Your task to perform on an android device: View the shopping cart on target. Add usb-a to the cart on target Image 0: 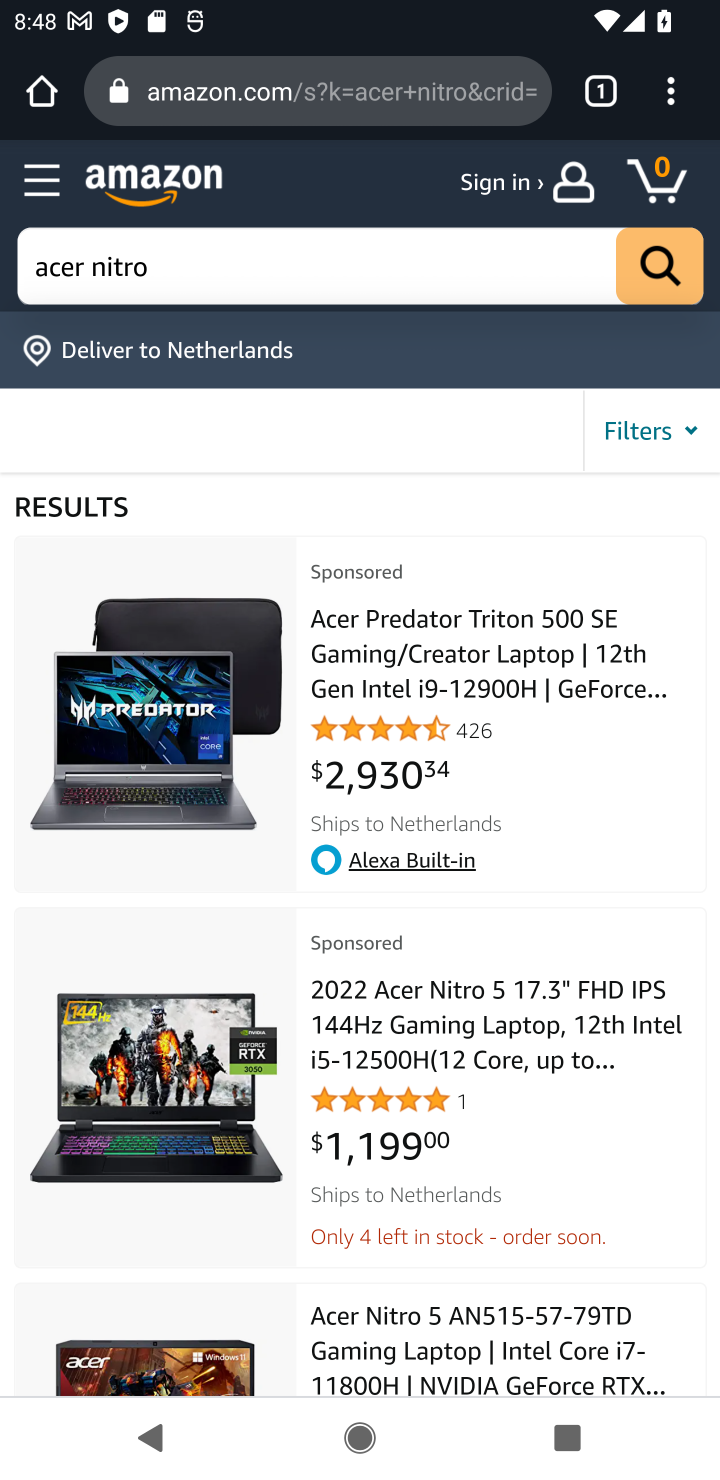
Step 0: press home button
Your task to perform on an android device: View the shopping cart on target. Add usb-a to the cart on target Image 1: 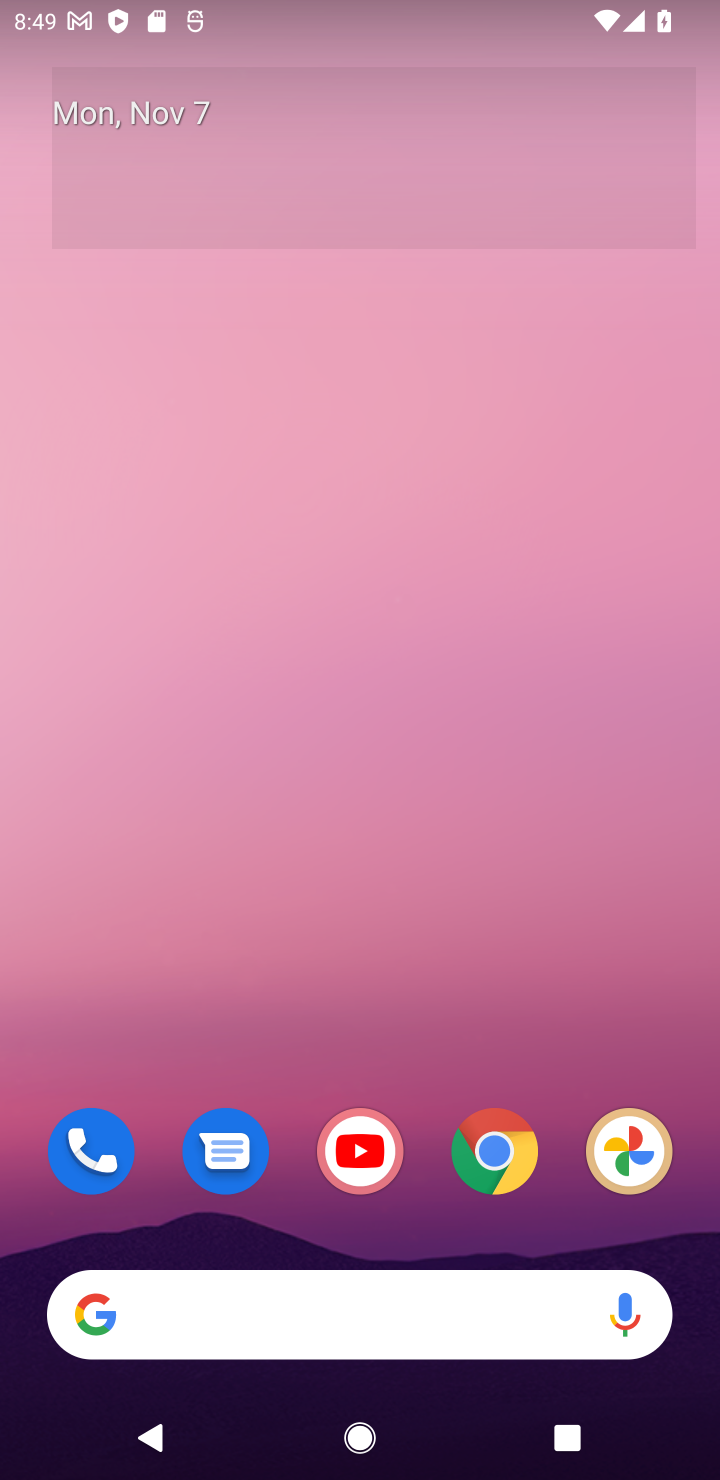
Step 1: click (483, 1144)
Your task to perform on an android device: View the shopping cart on target. Add usb-a to the cart on target Image 2: 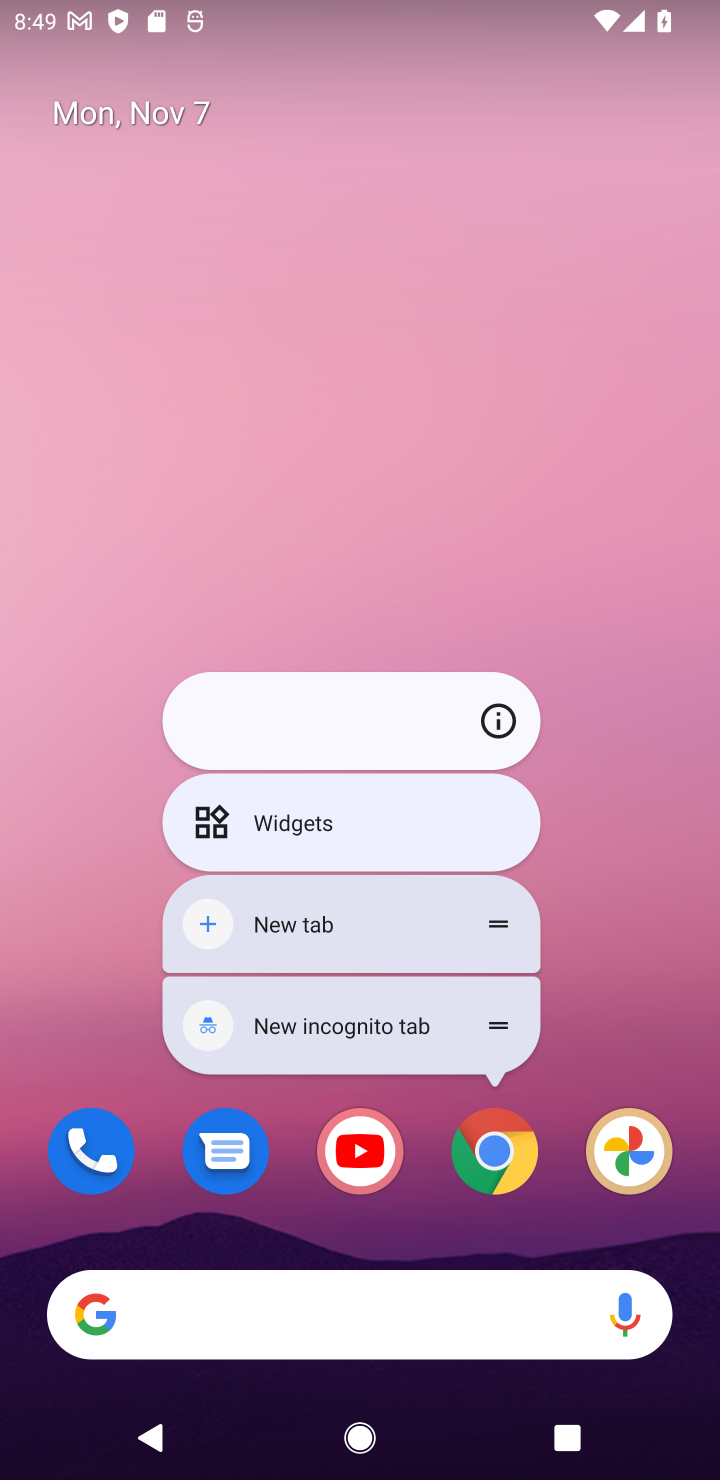
Step 2: click (483, 1148)
Your task to perform on an android device: View the shopping cart on target. Add usb-a to the cart on target Image 3: 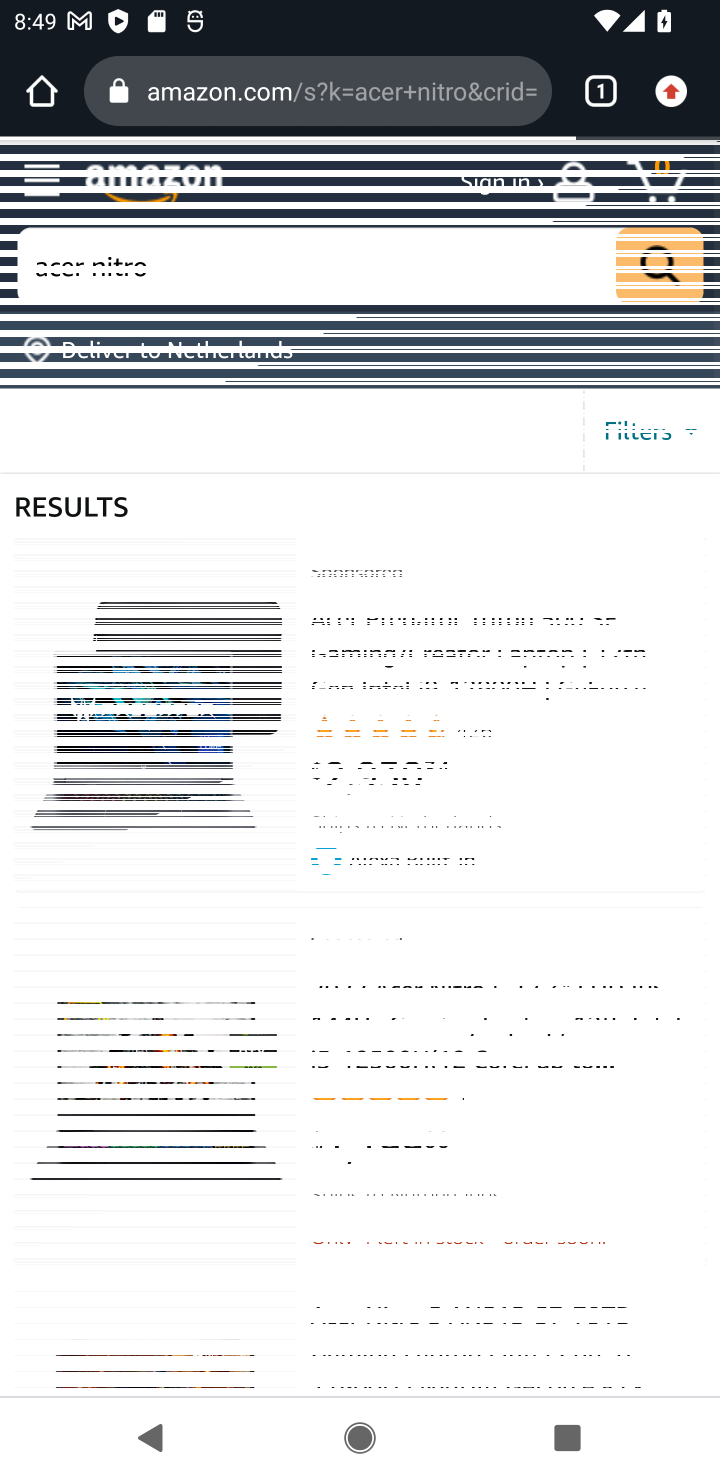
Step 3: click (372, 98)
Your task to perform on an android device: View the shopping cart on target. Add usb-a to the cart on target Image 4: 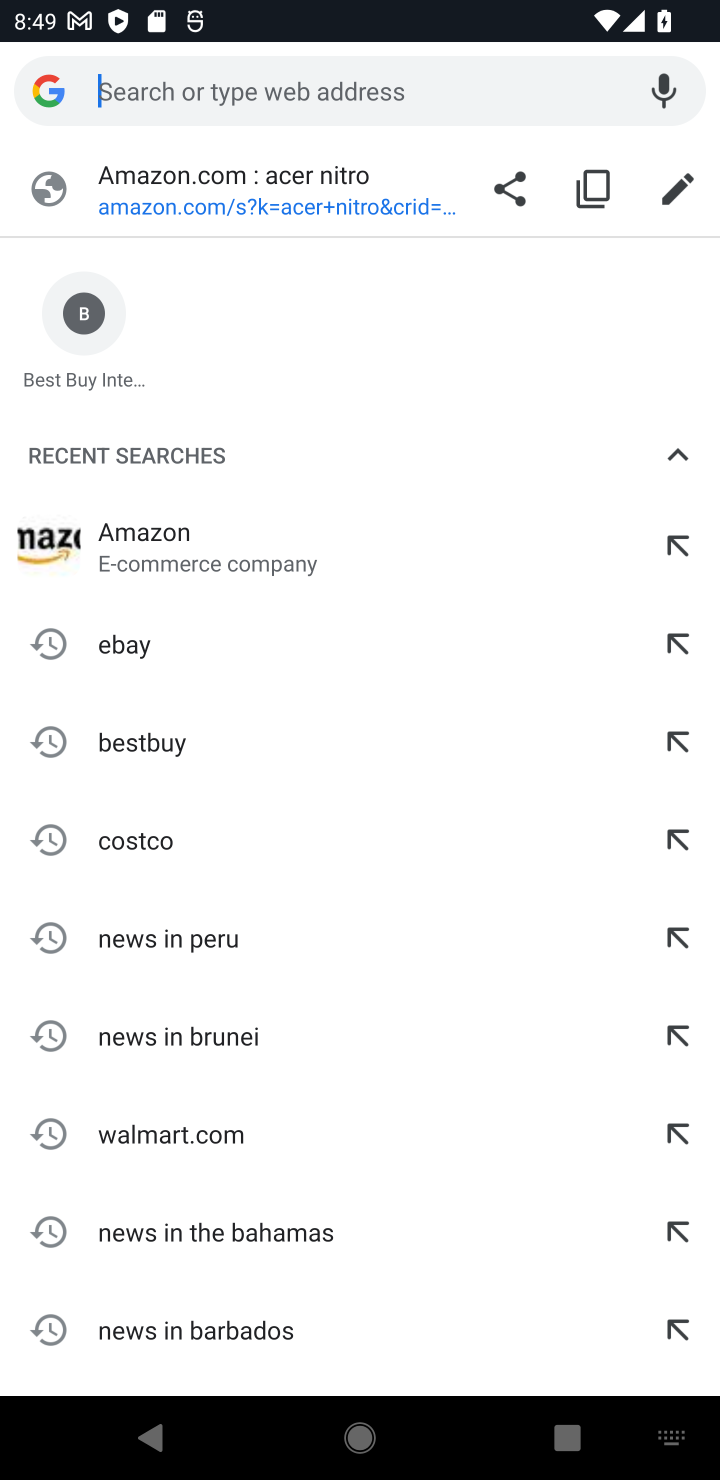
Step 4: drag from (284, 1204) to (370, 561)
Your task to perform on an android device: View the shopping cart on target. Add usb-a to the cart on target Image 5: 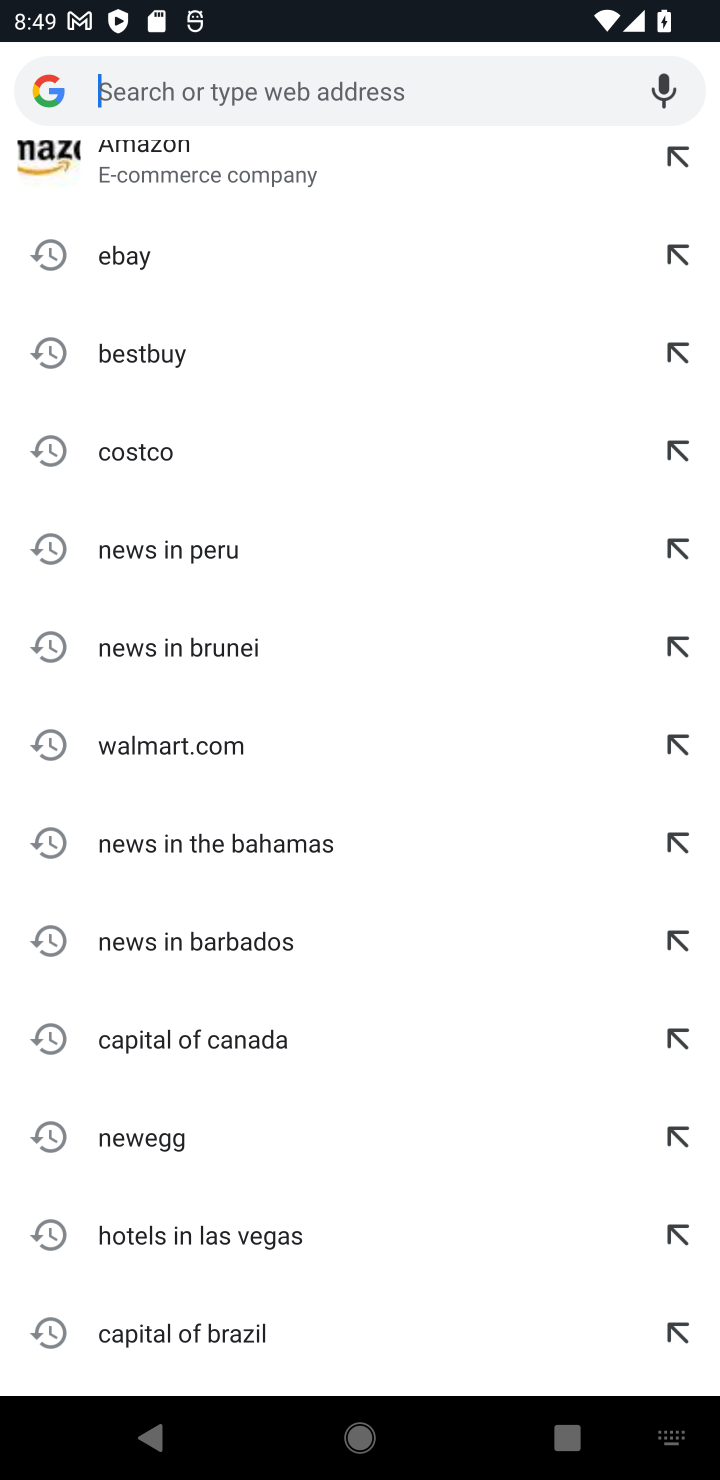
Step 5: type "target"
Your task to perform on an android device: View the shopping cart on target. Add usb-a to the cart on target Image 6: 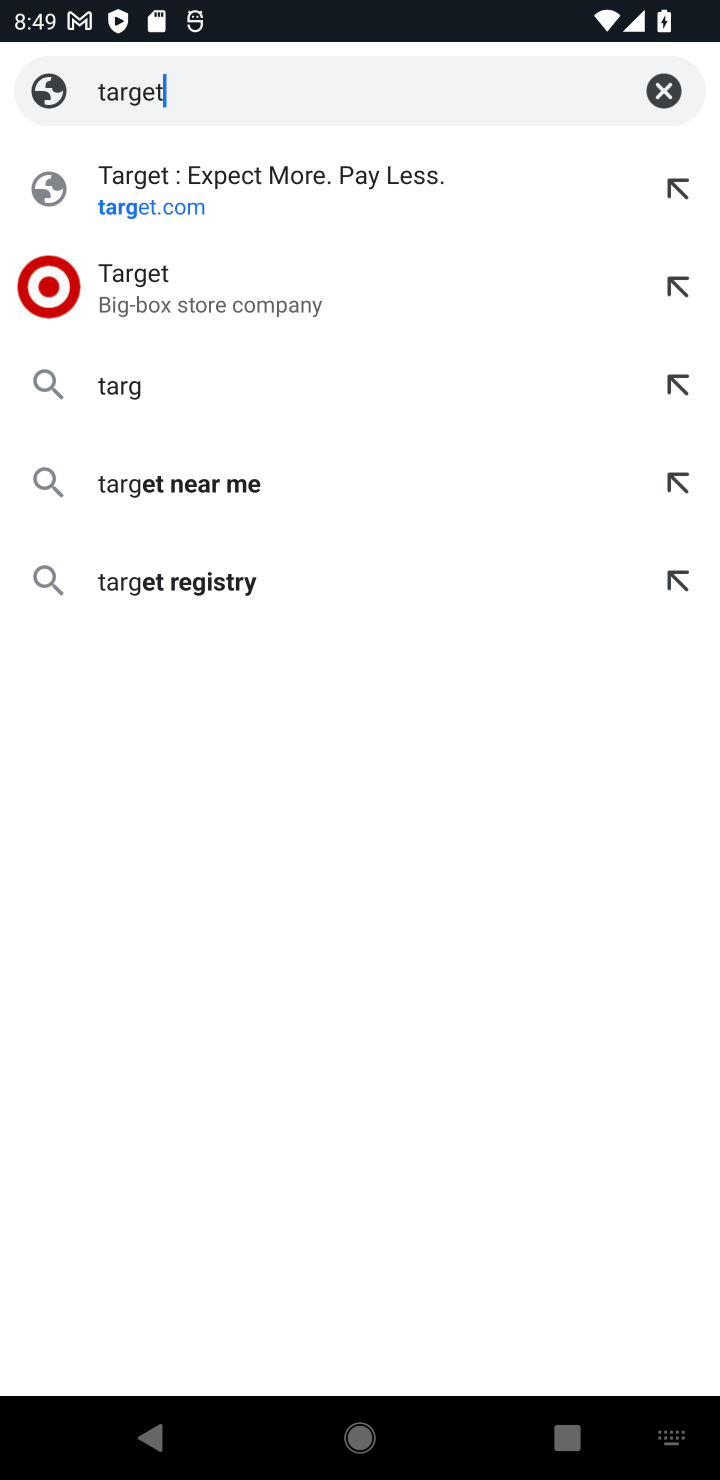
Step 6: press enter
Your task to perform on an android device: View the shopping cart on target. Add usb-a to the cart on target Image 7: 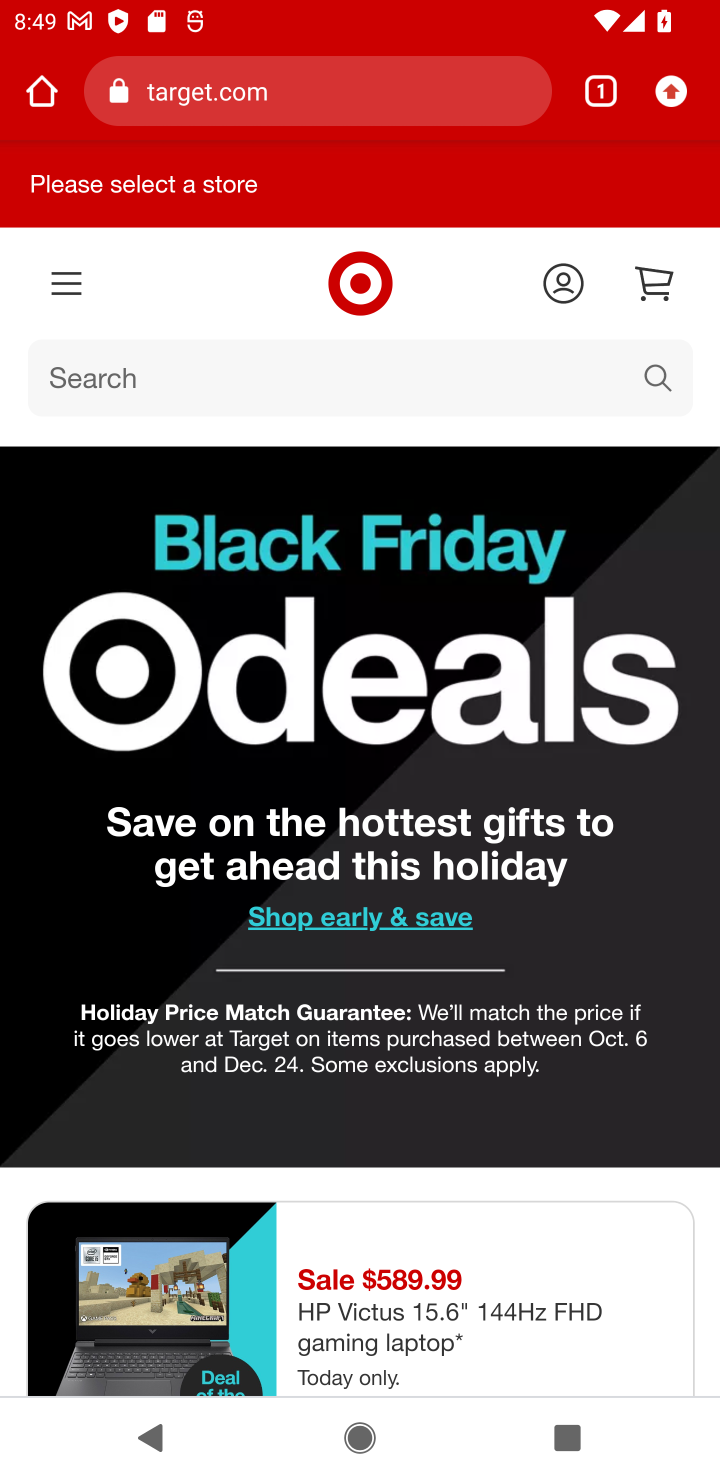
Step 7: click (293, 367)
Your task to perform on an android device: View the shopping cart on target. Add usb-a to the cart on target Image 8: 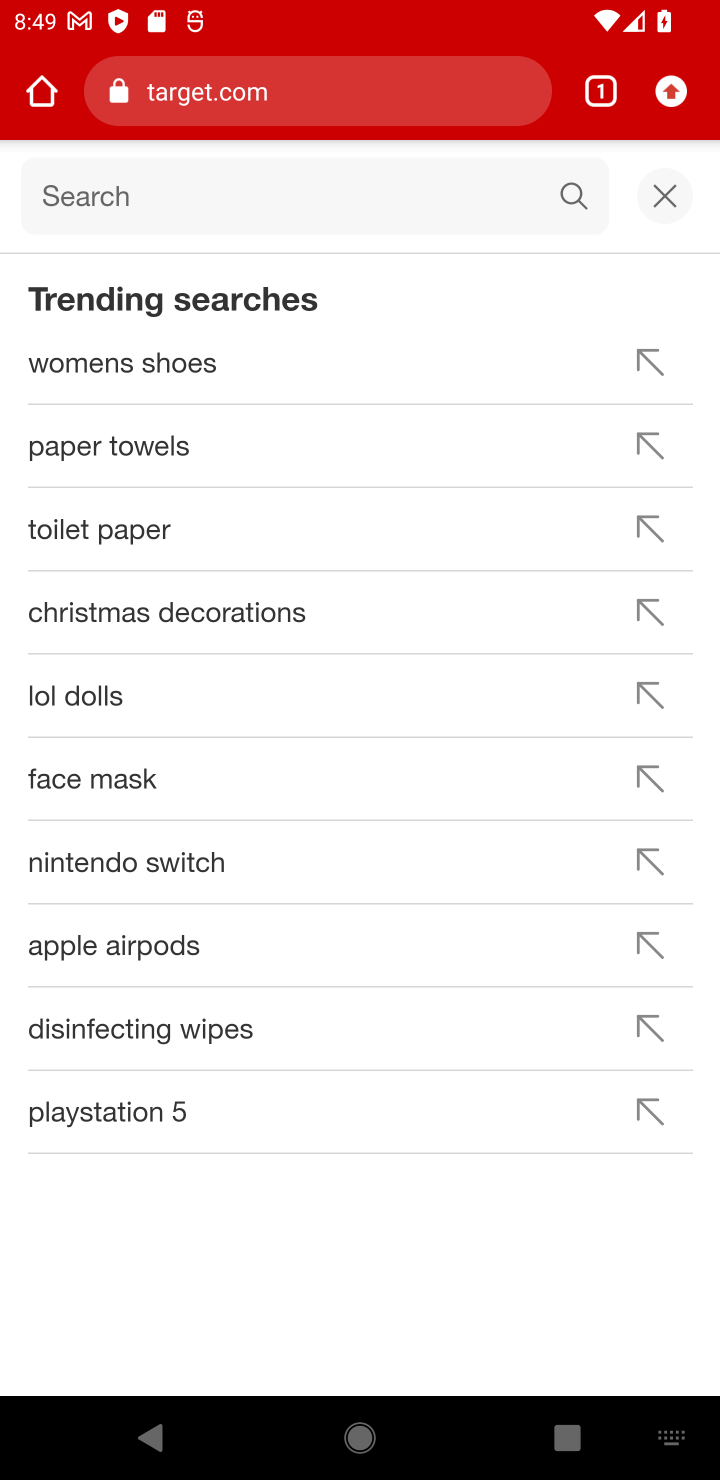
Step 8: type "usb-a"
Your task to perform on an android device: View the shopping cart on target. Add usb-a to the cart on target Image 9: 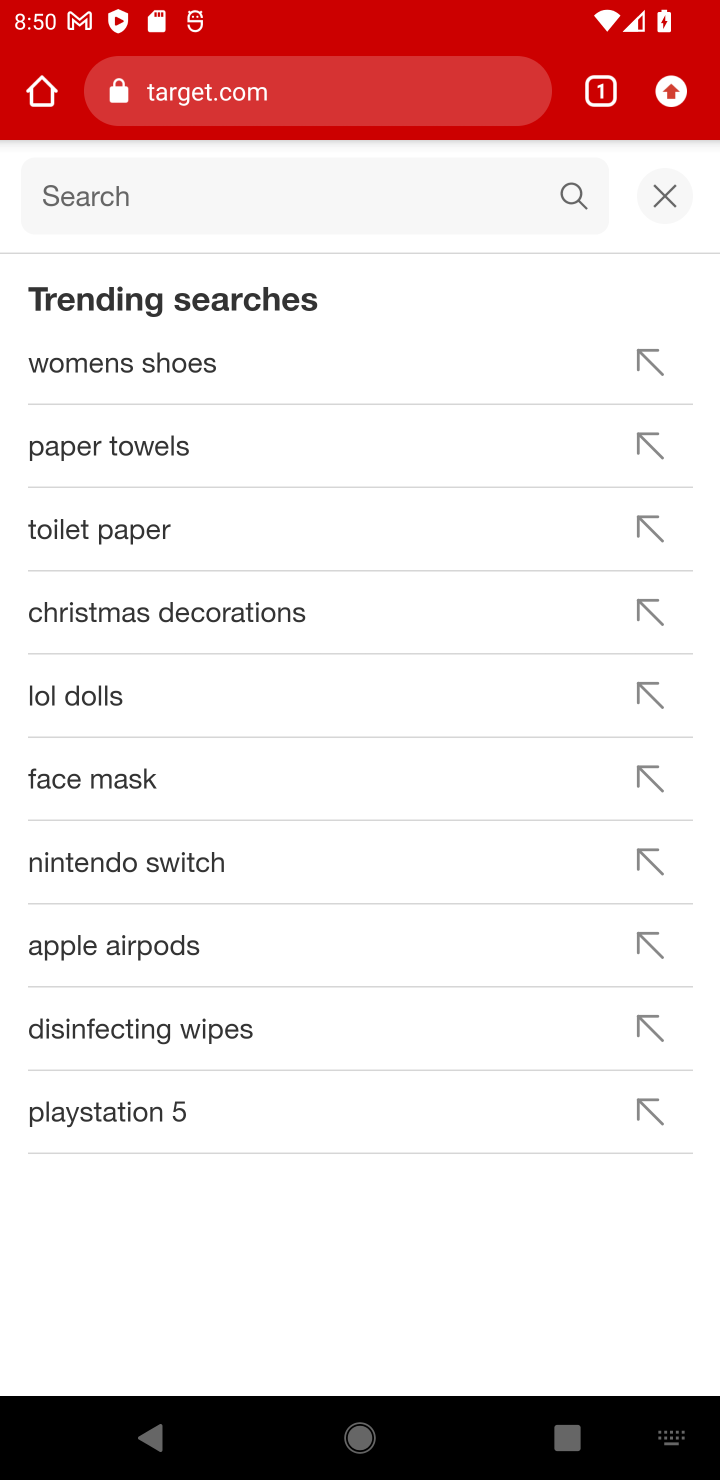
Step 9: press enter
Your task to perform on an android device: View the shopping cart on target. Add usb-a to the cart on target Image 10: 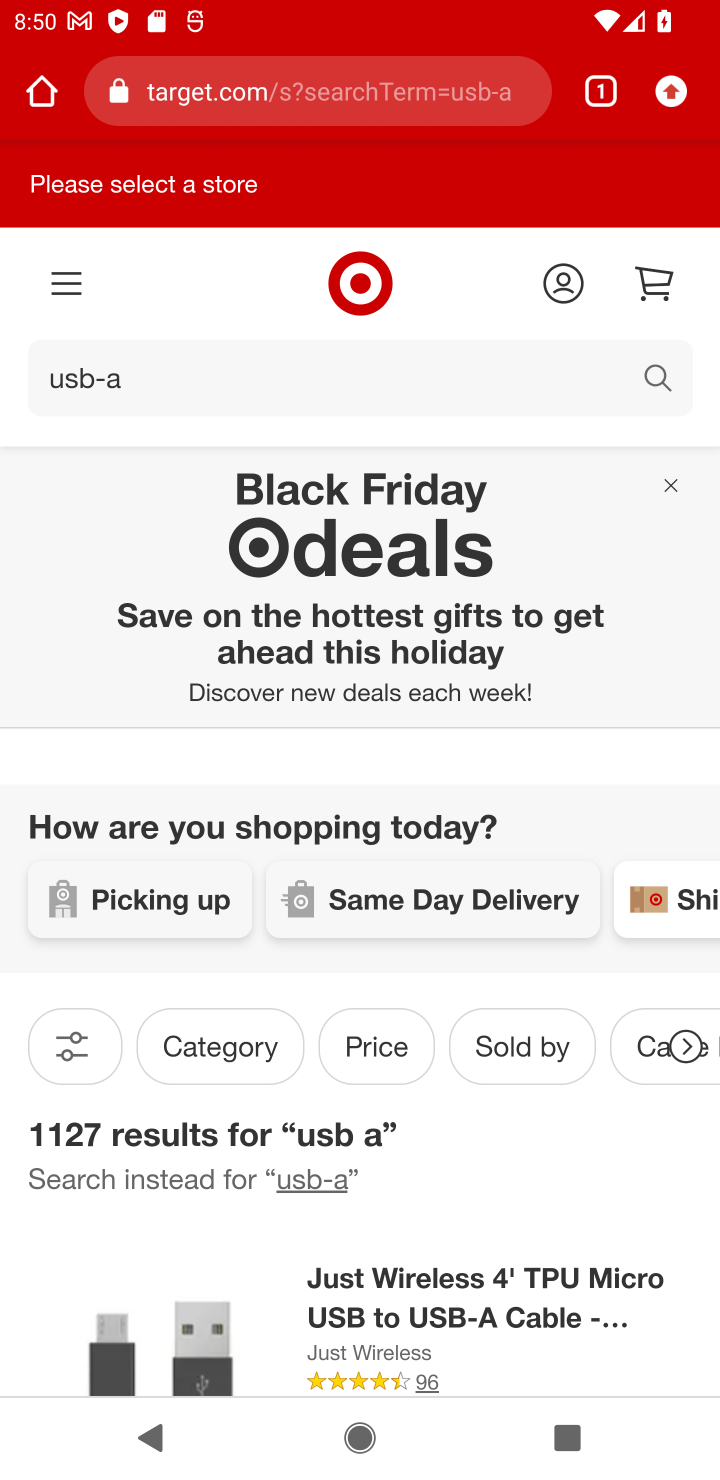
Step 10: task complete